Your task to perform on an android device: See recent photos Image 0: 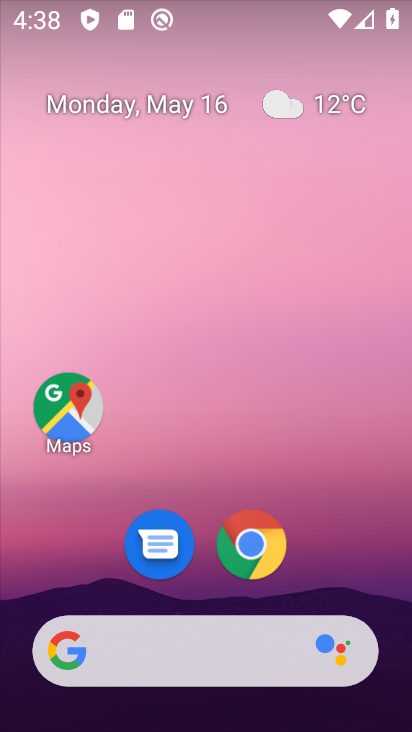
Step 0: drag from (318, 546) to (244, 115)
Your task to perform on an android device: See recent photos Image 1: 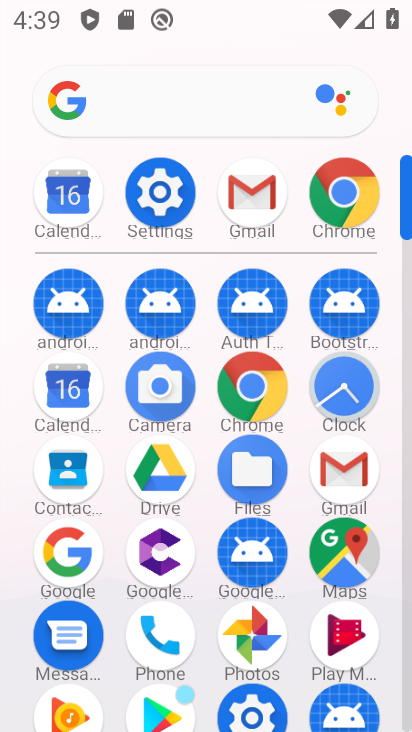
Step 1: click (251, 637)
Your task to perform on an android device: See recent photos Image 2: 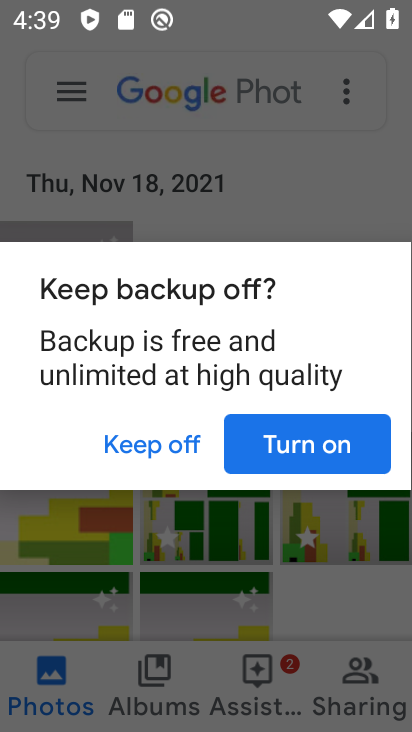
Step 2: click (306, 455)
Your task to perform on an android device: See recent photos Image 3: 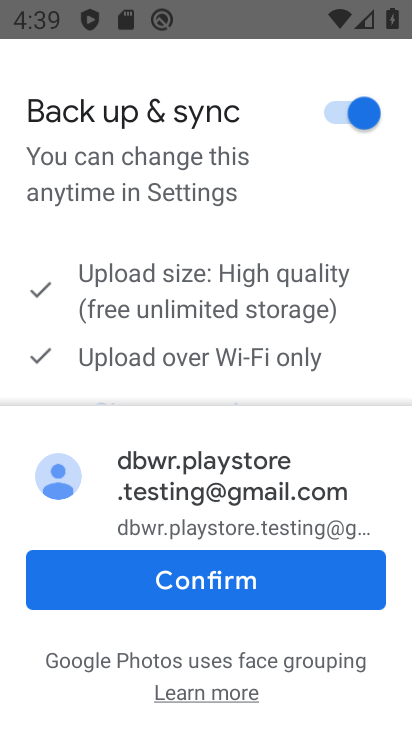
Step 3: click (221, 586)
Your task to perform on an android device: See recent photos Image 4: 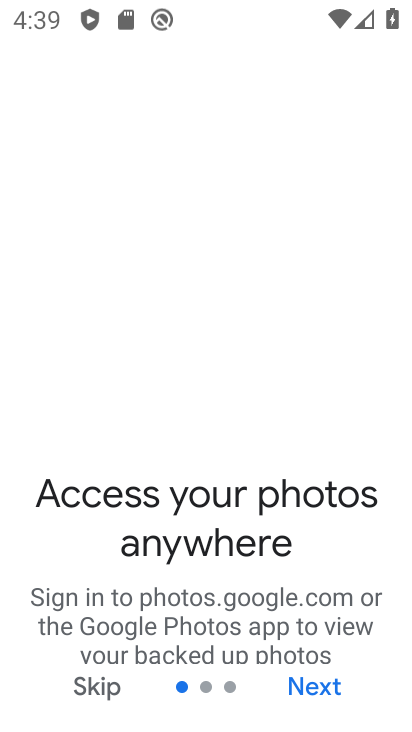
Step 4: click (292, 669)
Your task to perform on an android device: See recent photos Image 5: 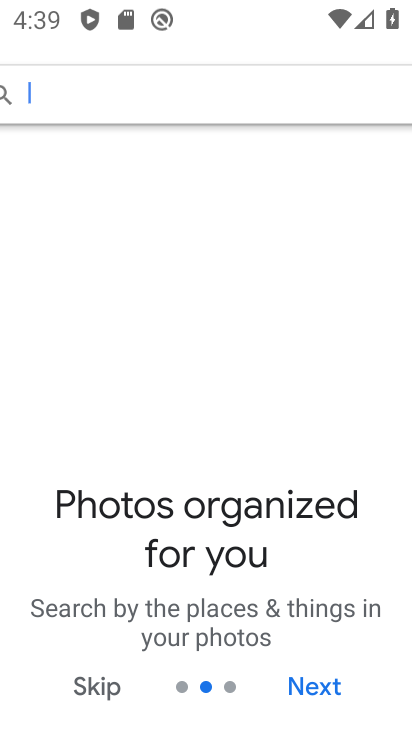
Step 5: click (292, 669)
Your task to perform on an android device: See recent photos Image 6: 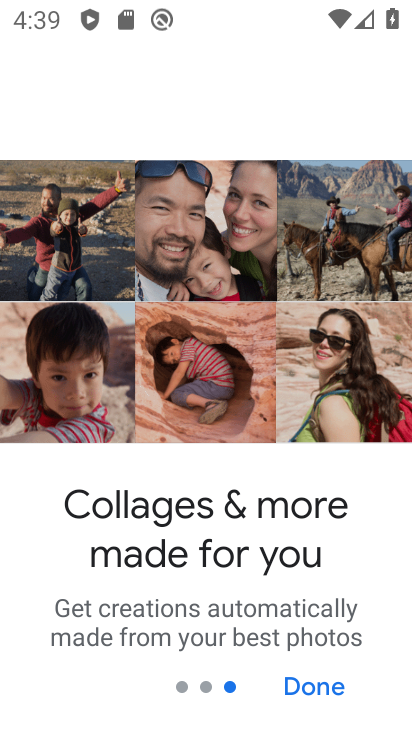
Step 6: click (292, 669)
Your task to perform on an android device: See recent photos Image 7: 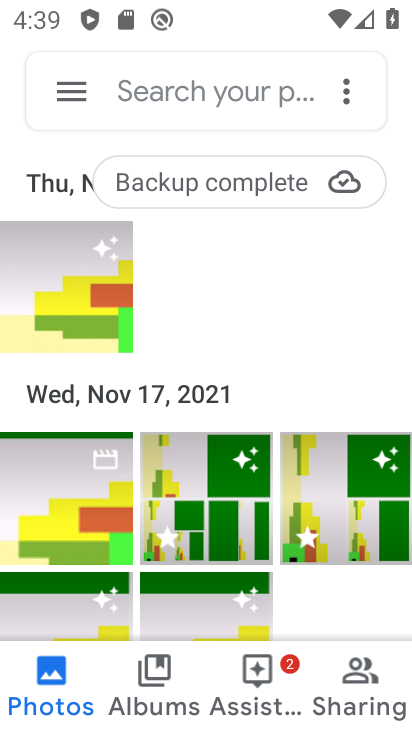
Step 7: click (82, 303)
Your task to perform on an android device: See recent photos Image 8: 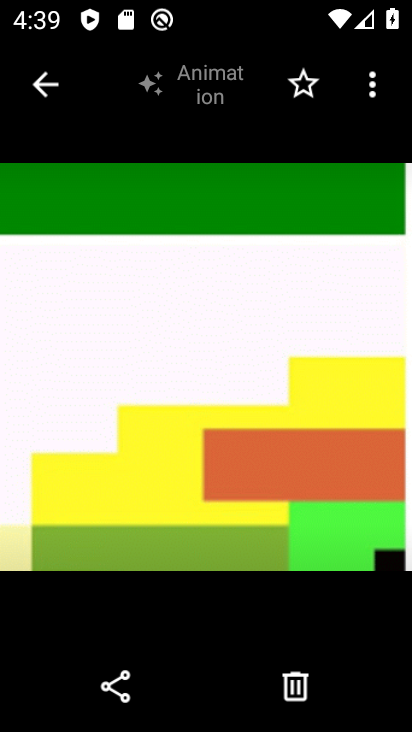
Step 8: task complete